Your task to perform on an android device: open the mobile data screen to see how much data has been used Image 0: 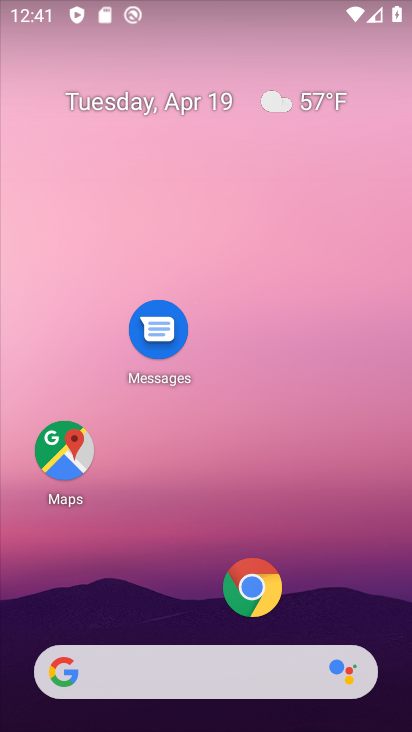
Step 0: drag from (164, 574) to (149, 120)
Your task to perform on an android device: open the mobile data screen to see how much data has been used Image 1: 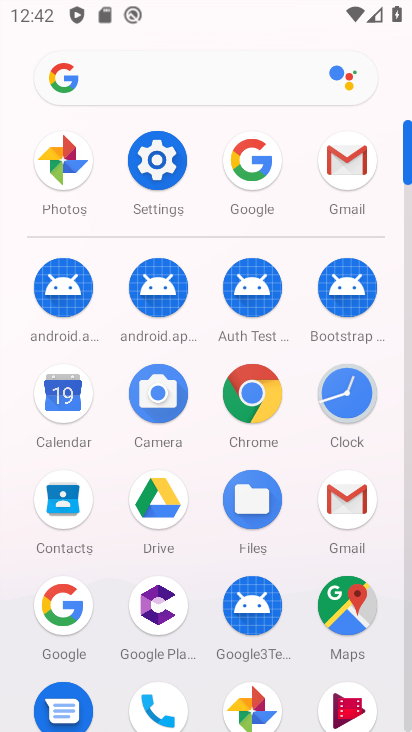
Step 1: click (155, 162)
Your task to perform on an android device: open the mobile data screen to see how much data has been used Image 2: 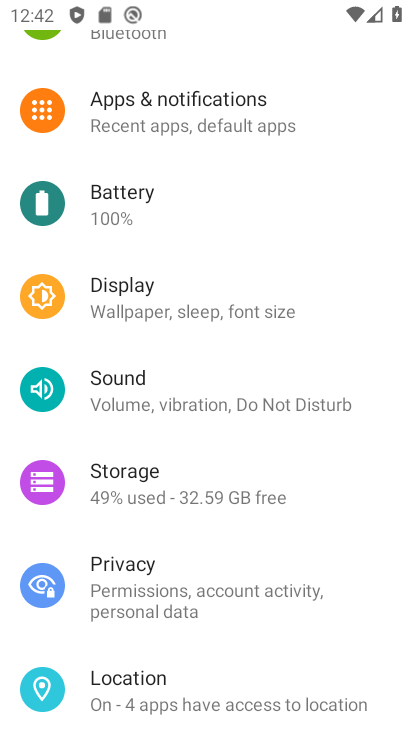
Step 2: drag from (173, 198) to (220, 473)
Your task to perform on an android device: open the mobile data screen to see how much data has been used Image 3: 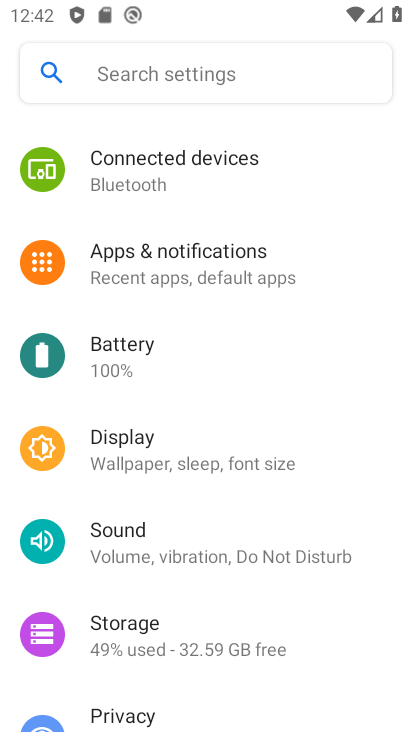
Step 3: drag from (166, 210) to (203, 497)
Your task to perform on an android device: open the mobile data screen to see how much data has been used Image 4: 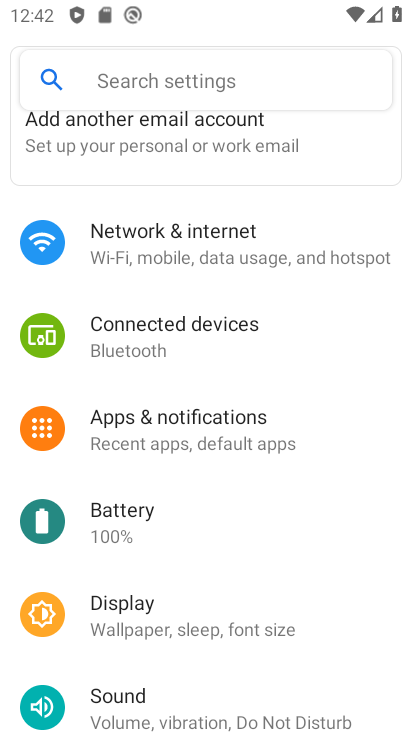
Step 4: click (161, 247)
Your task to perform on an android device: open the mobile data screen to see how much data has been used Image 5: 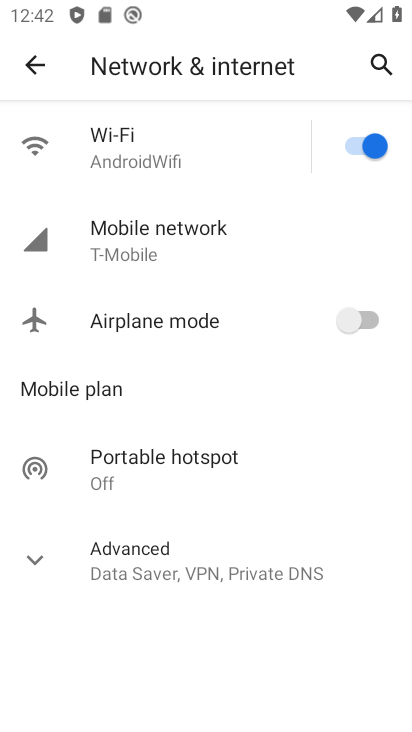
Step 5: click (161, 247)
Your task to perform on an android device: open the mobile data screen to see how much data has been used Image 6: 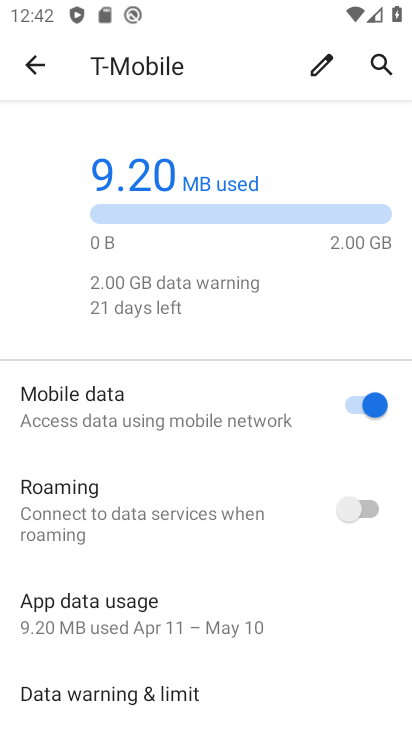
Step 6: task complete